Your task to perform on an android device: turn vacation reply on in the gmail app Image 0: 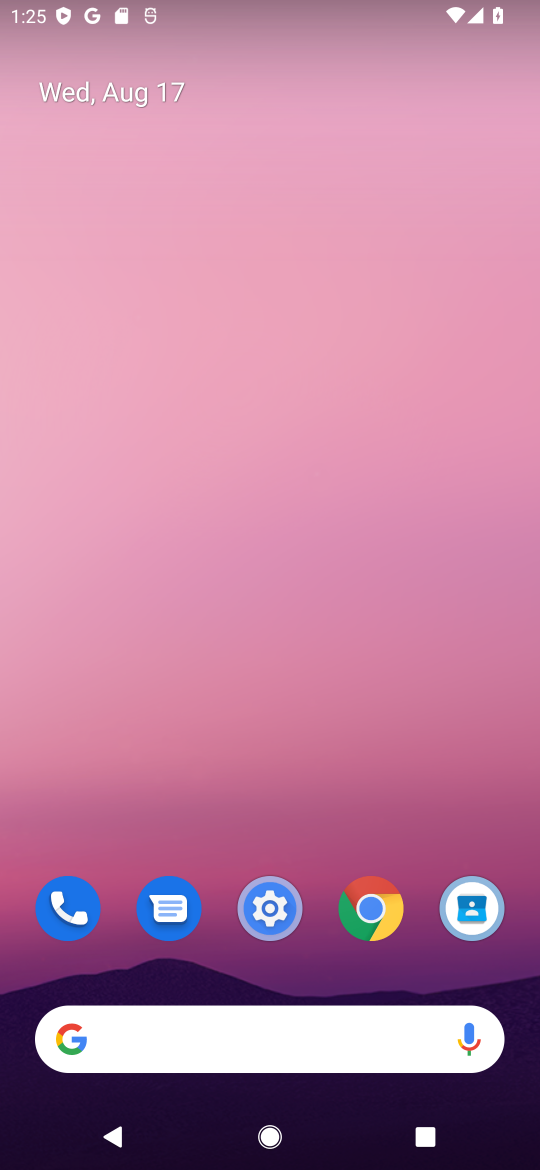
Step 0: press home button
Your task to perform on an android device: turn vacation reply on in the gmail app Image 1: 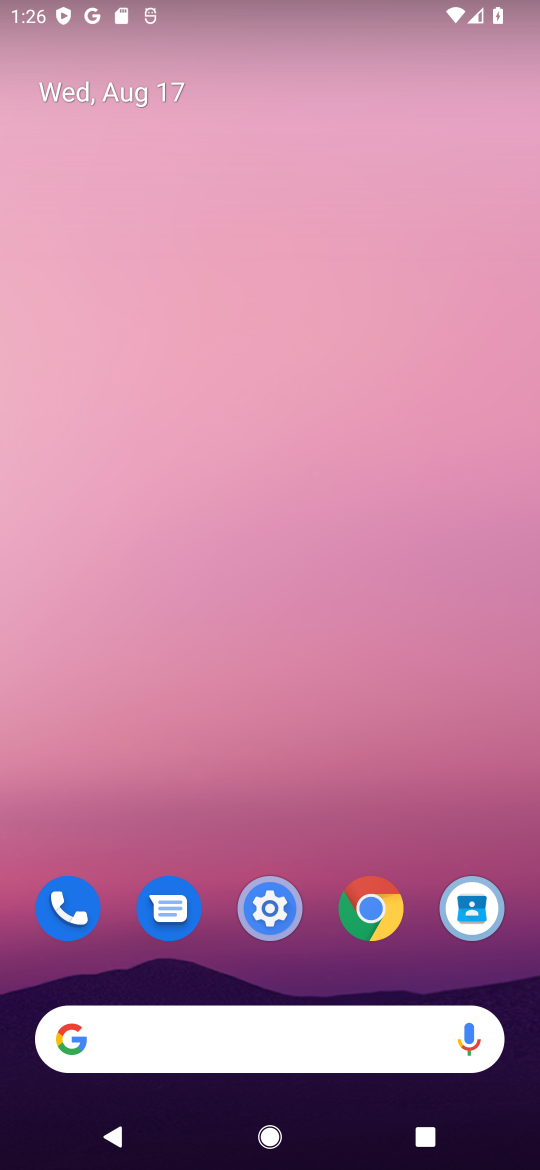
Step 1: drag from (304, 975) to (302, 146)
Your task to perform on an android device: turn vacation reply on in the gmail app Image 2: 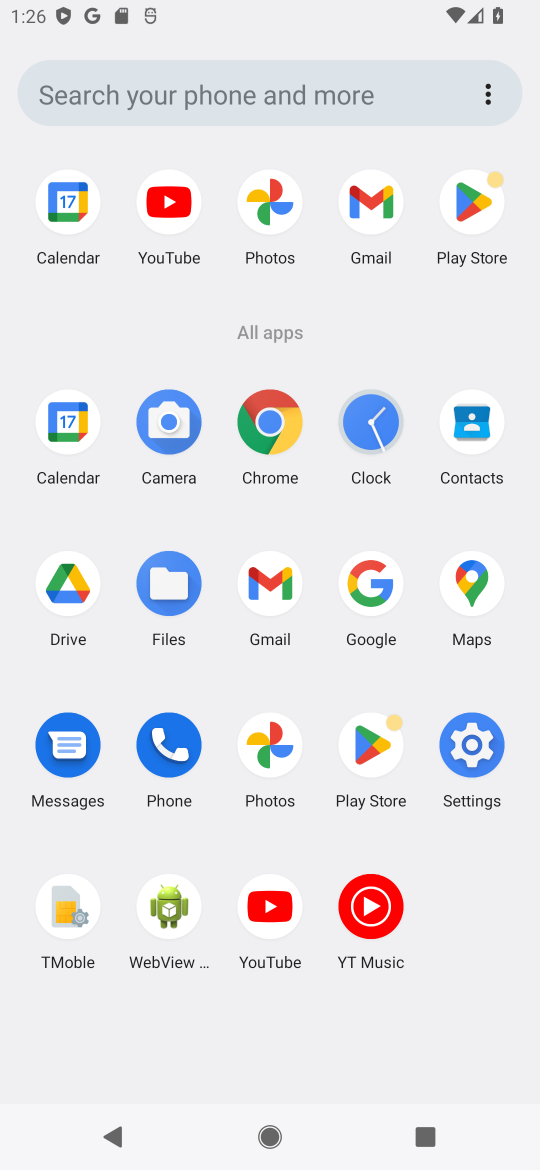
Step 2: click (266, 576)
Your task to perform on an android device: turn vacation reply on in the gmail app Image 3: 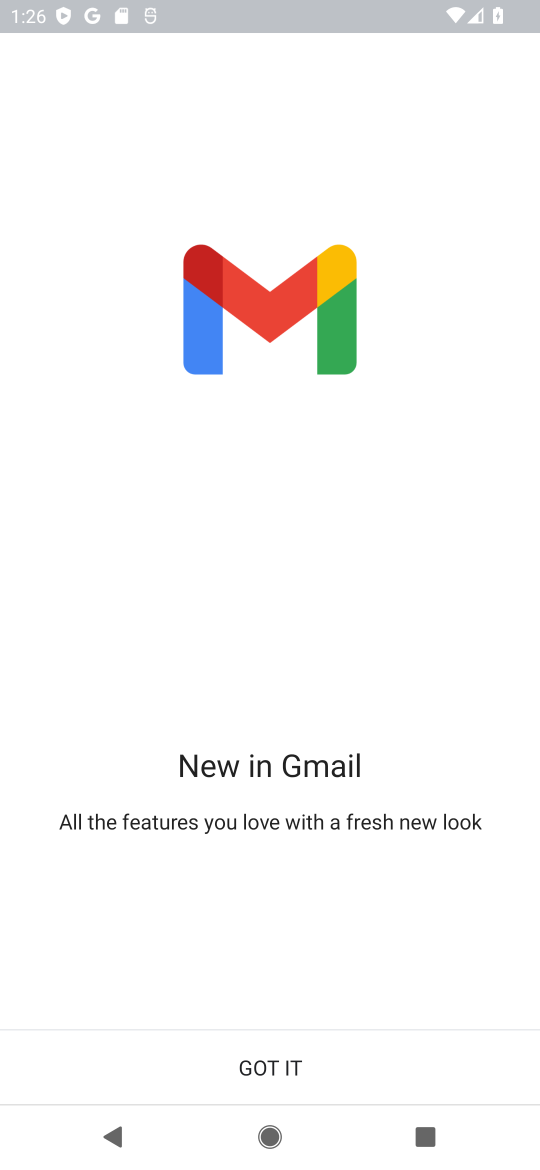
Step 3: click (301, 1065)
Your task to perform on an android device: turn vacation reply on in the gmail app Image 4: 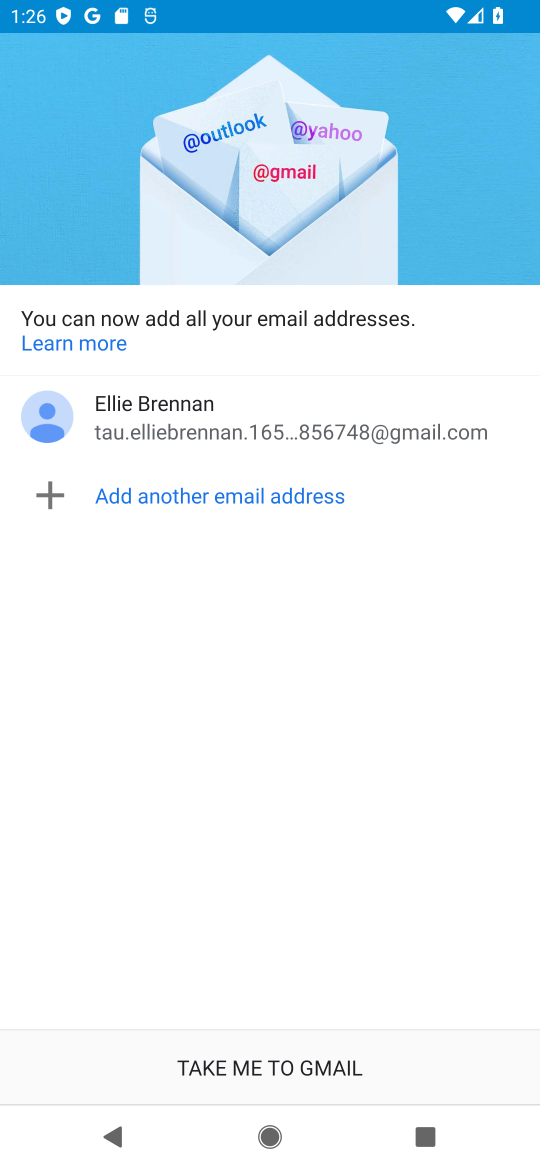
Step 4: click (301, 1065)
Your task to perform on an android device: turn vacation reply on in the gmail app Image 5: 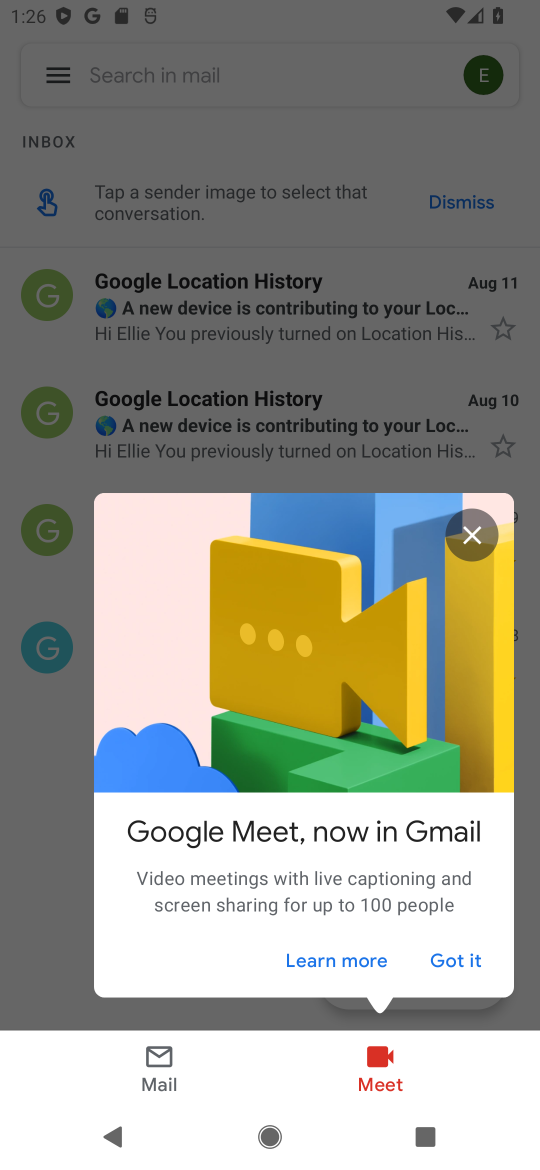
Step 5: click (465, 537)
Your task to perform on an android device: turn vacation reply on in the gmail app Image 6: 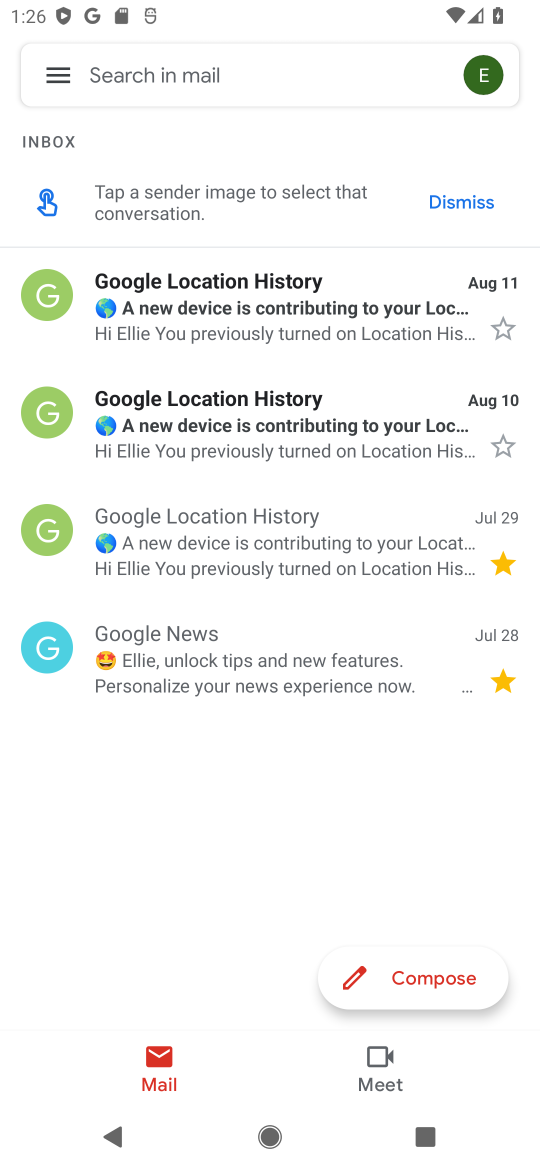
Step 6: click (63, 82)
Your task to perform on an android device: turn vacation reply on in the gmail app Image 7: 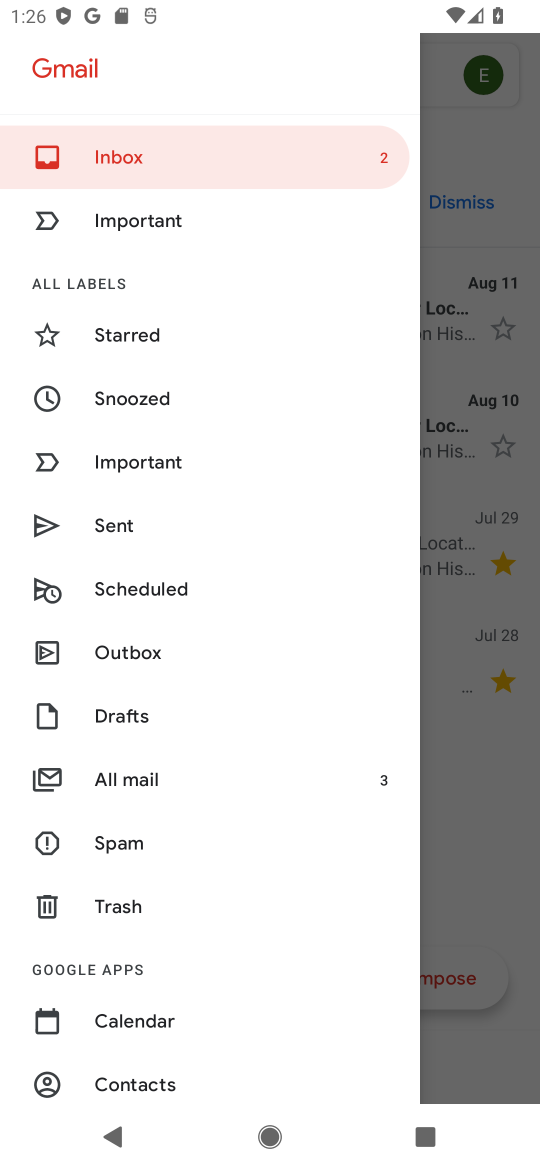
Step 7: drag from (215, 1018) to (210, 162)
Your task to perform on an android device: turn vacation reply on in the gmail app Image 8: 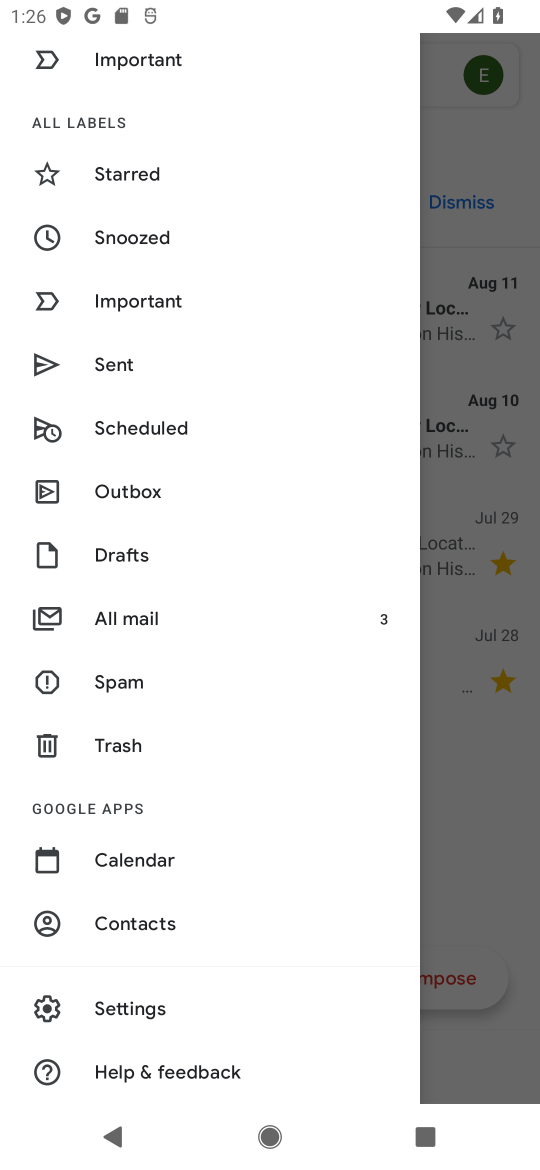
Step 8: click (123, 1001)
Your task to perform on an android device: turn vacation reply on in the gmail app Image 9: 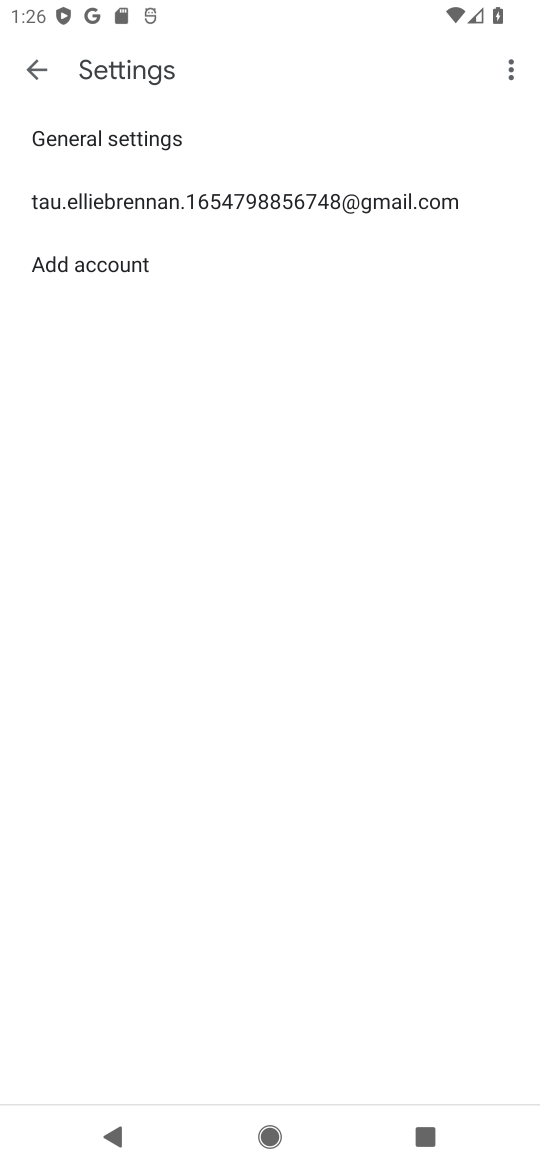
Step 9: click (220, 212)
Your task to perform on an android device: turn vacation reply on in the gmail app Image 10: 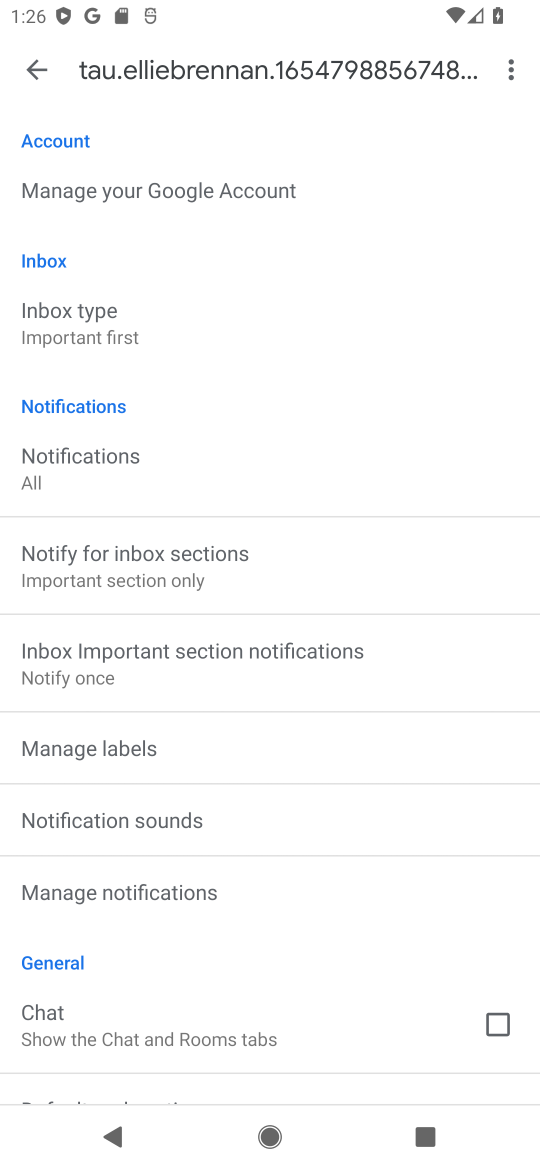
Step 10: drag from (419, 907) to (369, 215)
Your task to perform on an android device: turn vacation reply on in the gmail app Image 11: 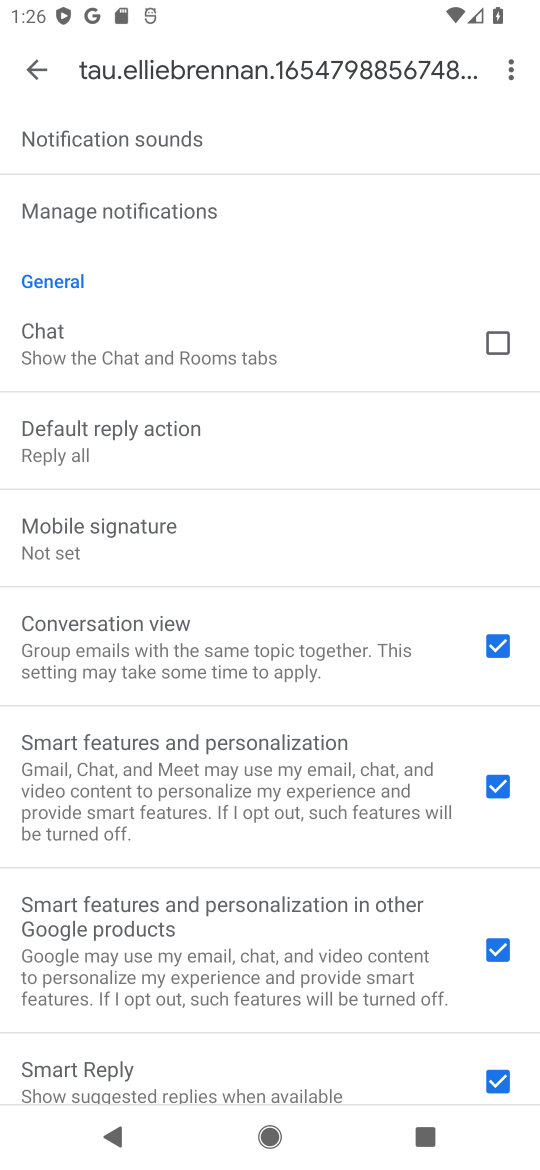
Step 11: drag from (378, 1063) to (272, 217)
Your task to perform on an android device: turn vacation reply on in the gmail app Image 12: 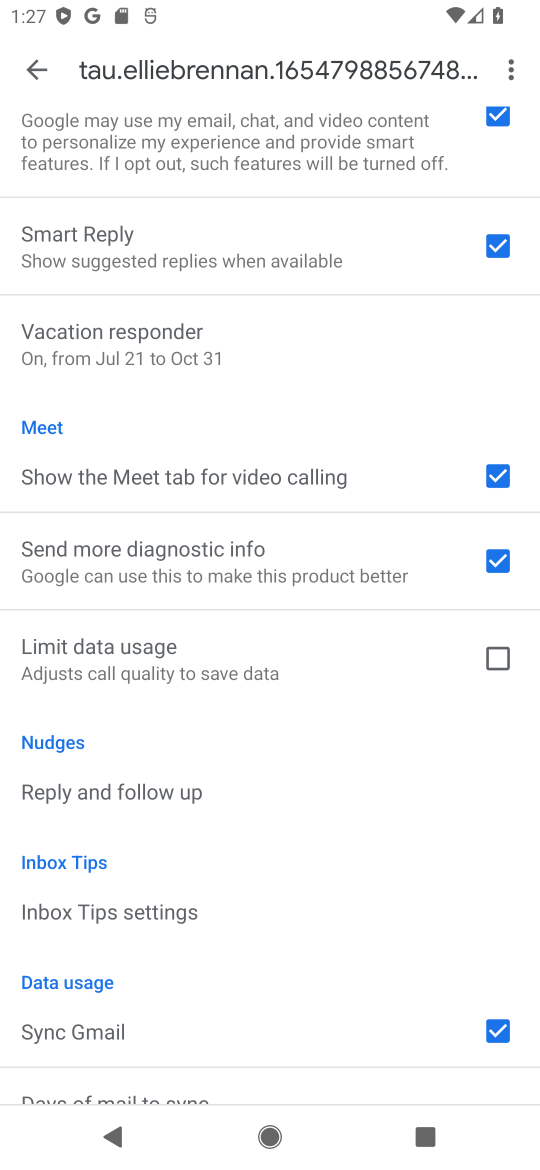
Step 12: click (101, 338)
Your task to perform on an android device: turn vacation reply on in the gmail app Image 13: 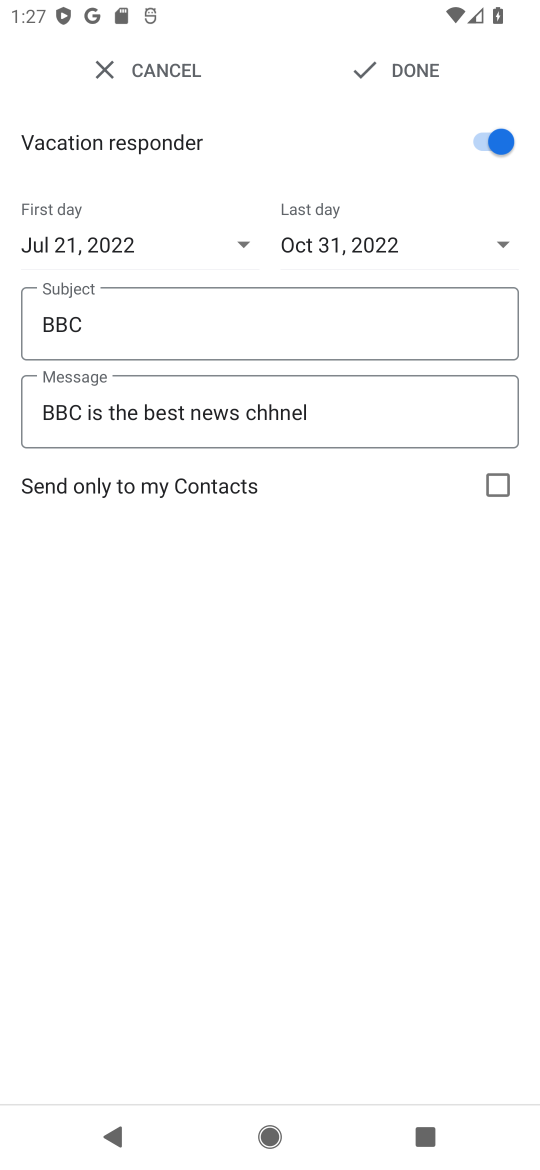
Step 13: task complete